Your task to perform on an android device: change timer sound Image 0: 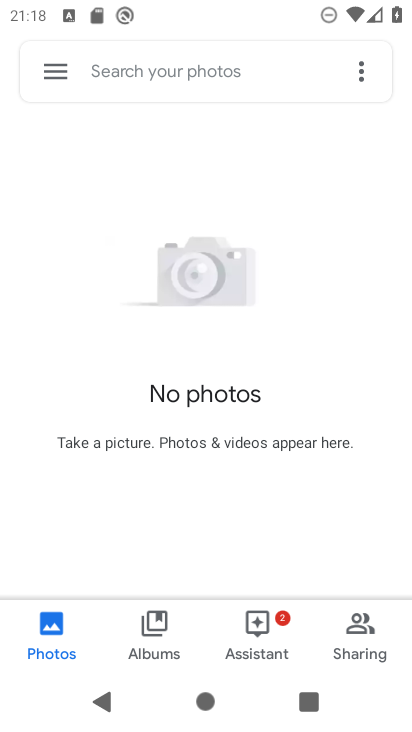
Step 0: press home button
Your task to perform on an android device: change timer sound Image 1: 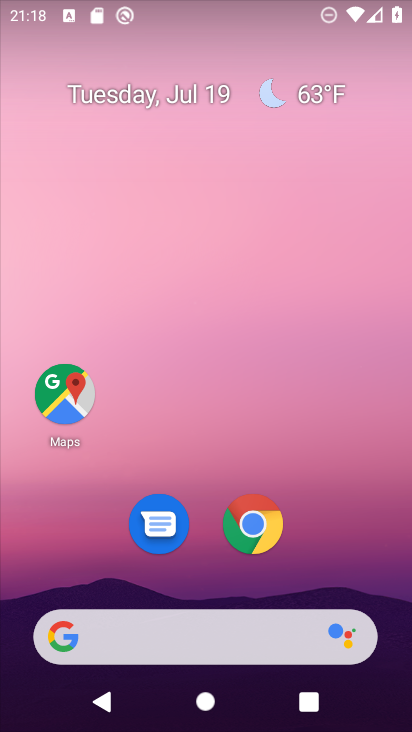
Step 1: drag from (316, 520) to (356, 39)
Your task to perform on an android device: change timer sound Image 2: 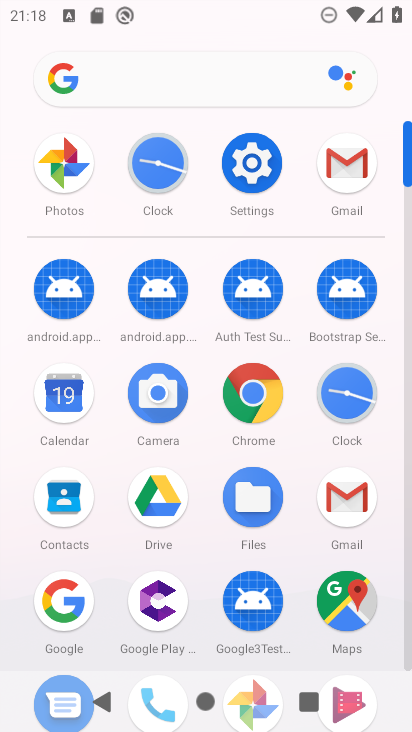
Step 2: click (168, 154)
Your task to perform on an android device: change timer sound Image 3: 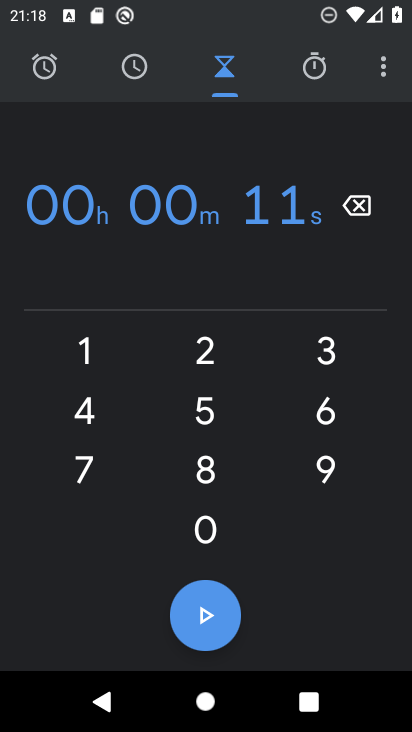
Step 3: click (380, 71)
Your task to perform on an android device: change timer sound Image 4: 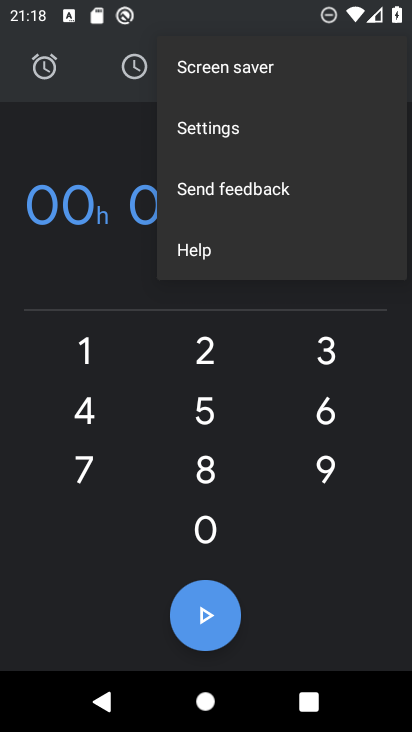
Step 4: click (257, 130)
Your task to perform on an android device: change timer sound Image 5: 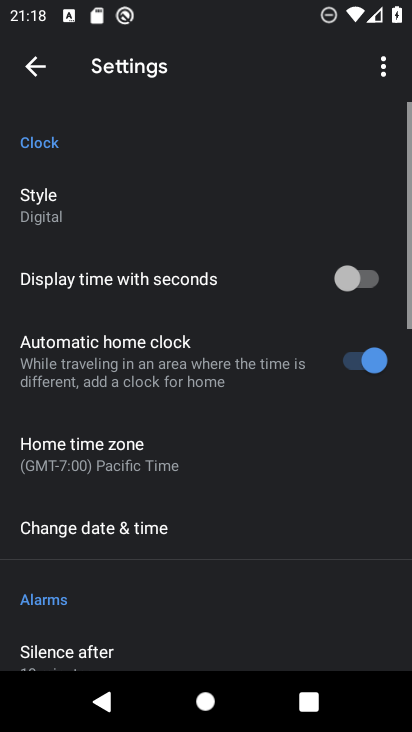
Step 5: drag from (172, 607) to (243, 99)
Your task to perform on an android device: change timer sound Image 6: 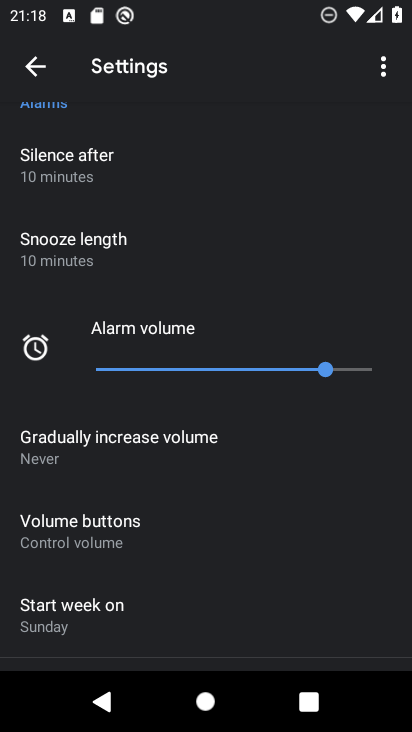
Step 6: drag from (214, 539) to (242, 136)
Your task to perform on an android device: change timer sound Image 7: 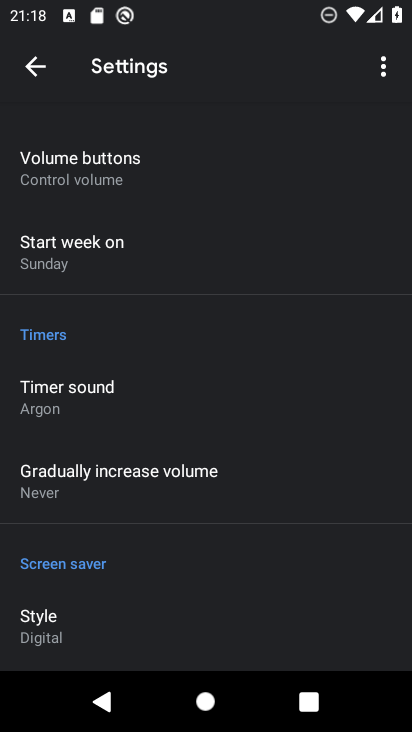
Step 7: click (82, 392)
Your task to perform on an android device: change timer sound Image 8: 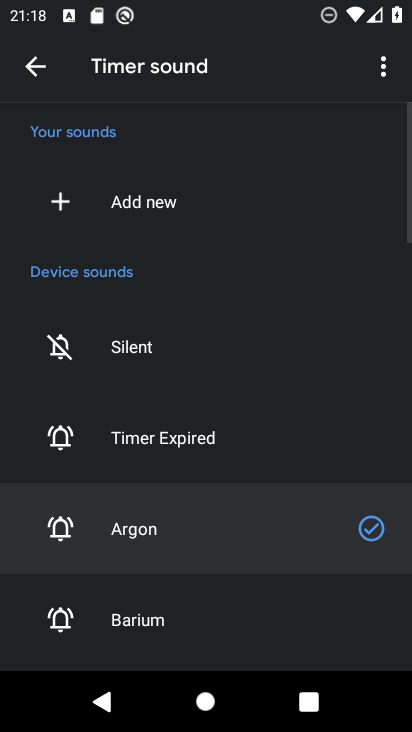
Step 8: click (108, 620)
Your task to perform on an android device: change timer sound Image 9: 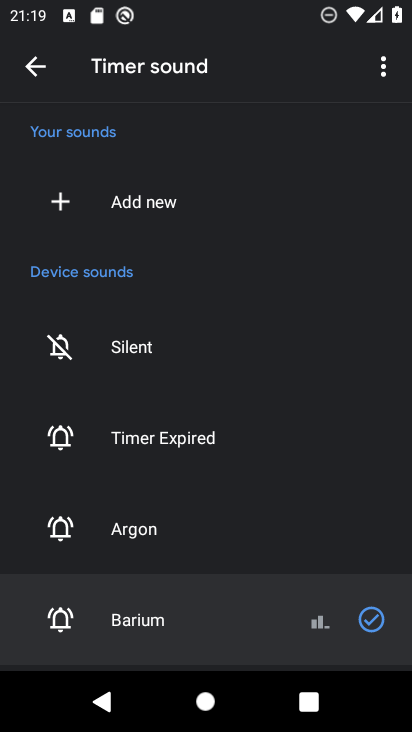
Step 9: task complete